Your task to perform on an android device: change text size in settings app Image 0: 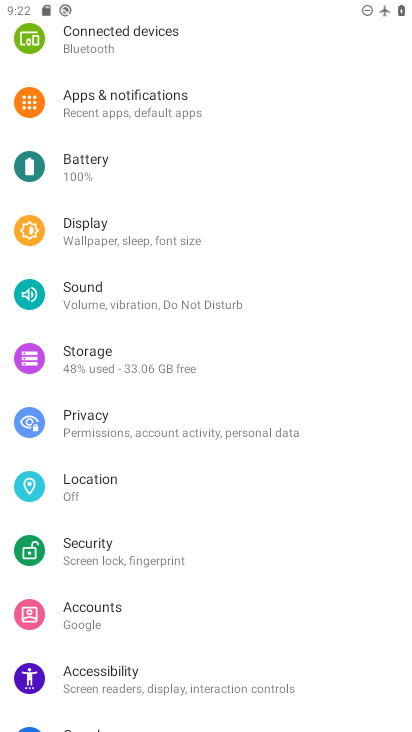
Step 0: click (122, 233)
Your task to perform on an android device: change text size in settings app Image 1: 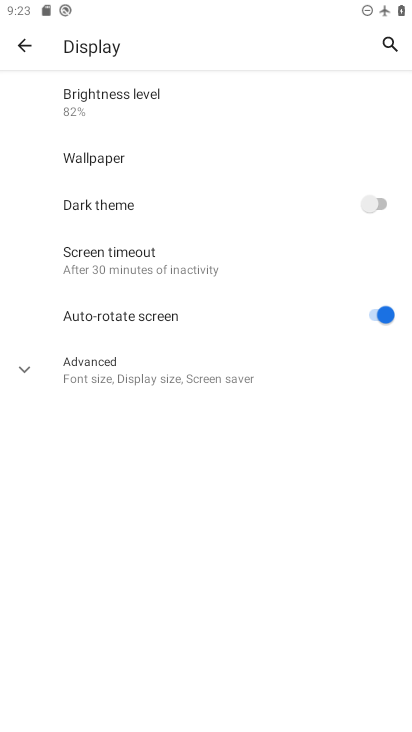
Step 1: click (87, 360)
Your task to perform on an android device: change text size in settings app Image 2: 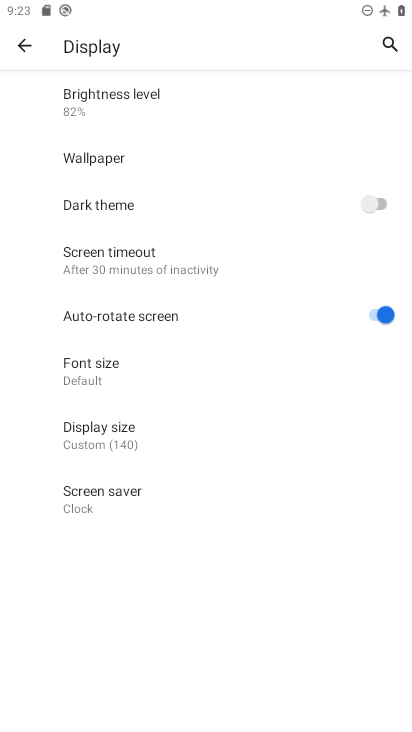
Step 2: click (119, 380)
Your task to perform on an android device: change text size in settings app Image 3: 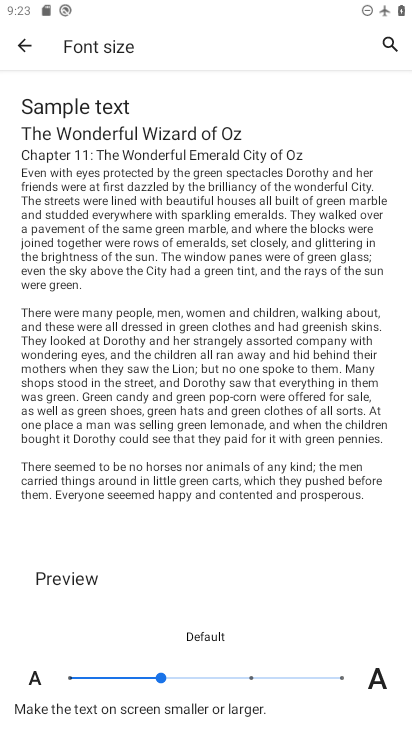
Step 3: click (67, 676)
Your task to perform on an android device: change text size in settings app Image 4: 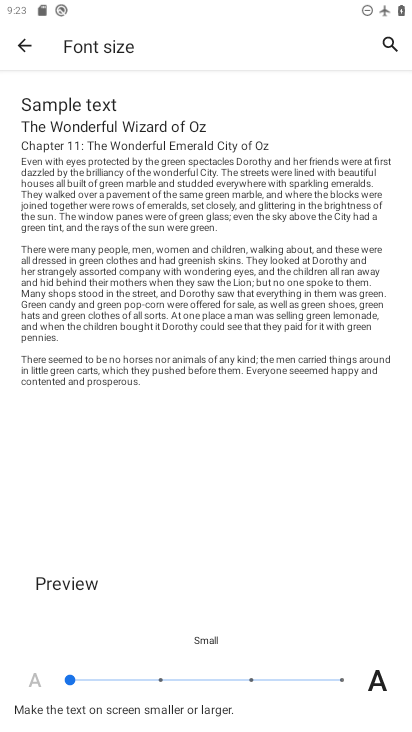
Step 4: task complete